Your task to perform on an android device: Toggle the flashlight Image 0: 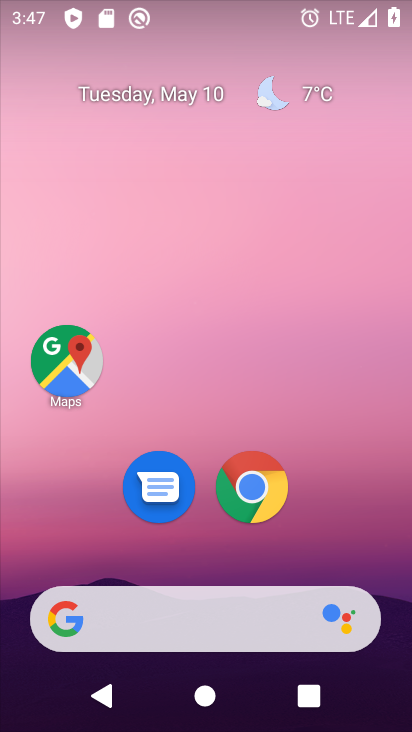
Step 0: drag from (355, 513) to (288, 0)
Your task to perform on an android device: Toggle the flashlight Image 1: 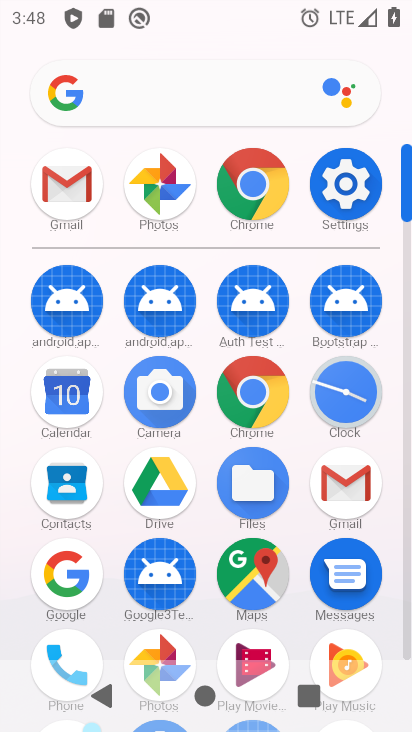
Step 1: click (359, 189)
Your task to perform on an android device: Toggle the flashlight Image 2: 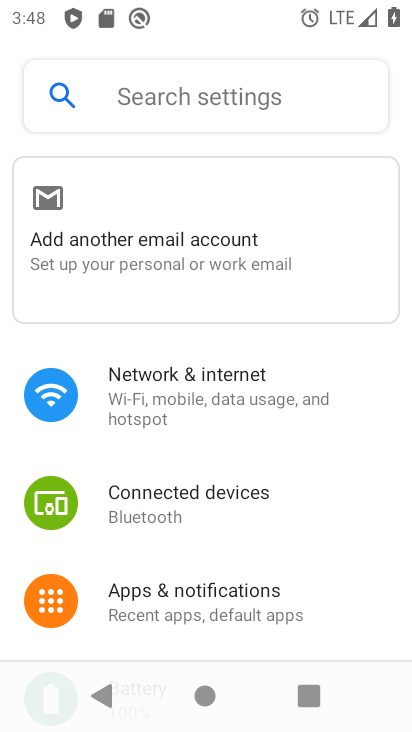
Step 2: drag from (244, 432) to (237, 128)
Your task to perform on an android device: Toggle the flashlight Image 3: 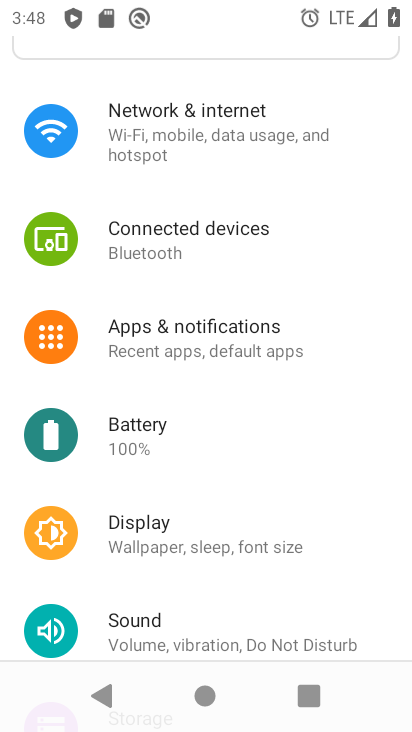
Step 3: click (152, 554)
Your task to perform on an android device: Toggle the flashlight Image 4: 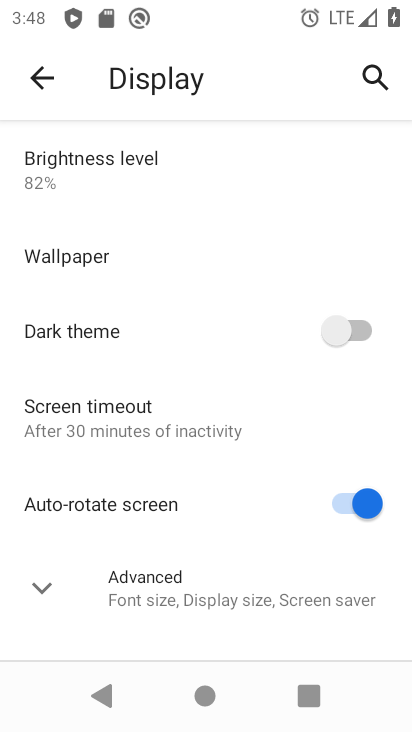
Step 4: click (150, 418)
Your task to perform on an android device: Toggle the flashlight Image 5: 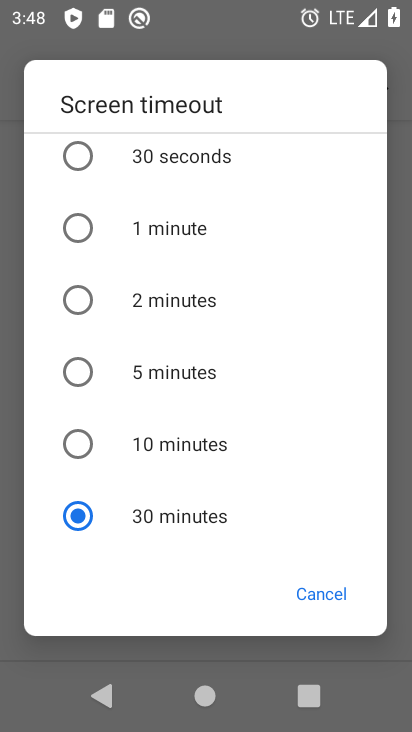
Step 5: task complete